Your task to perform on an android device: toggle improve location accuracy Image 0: 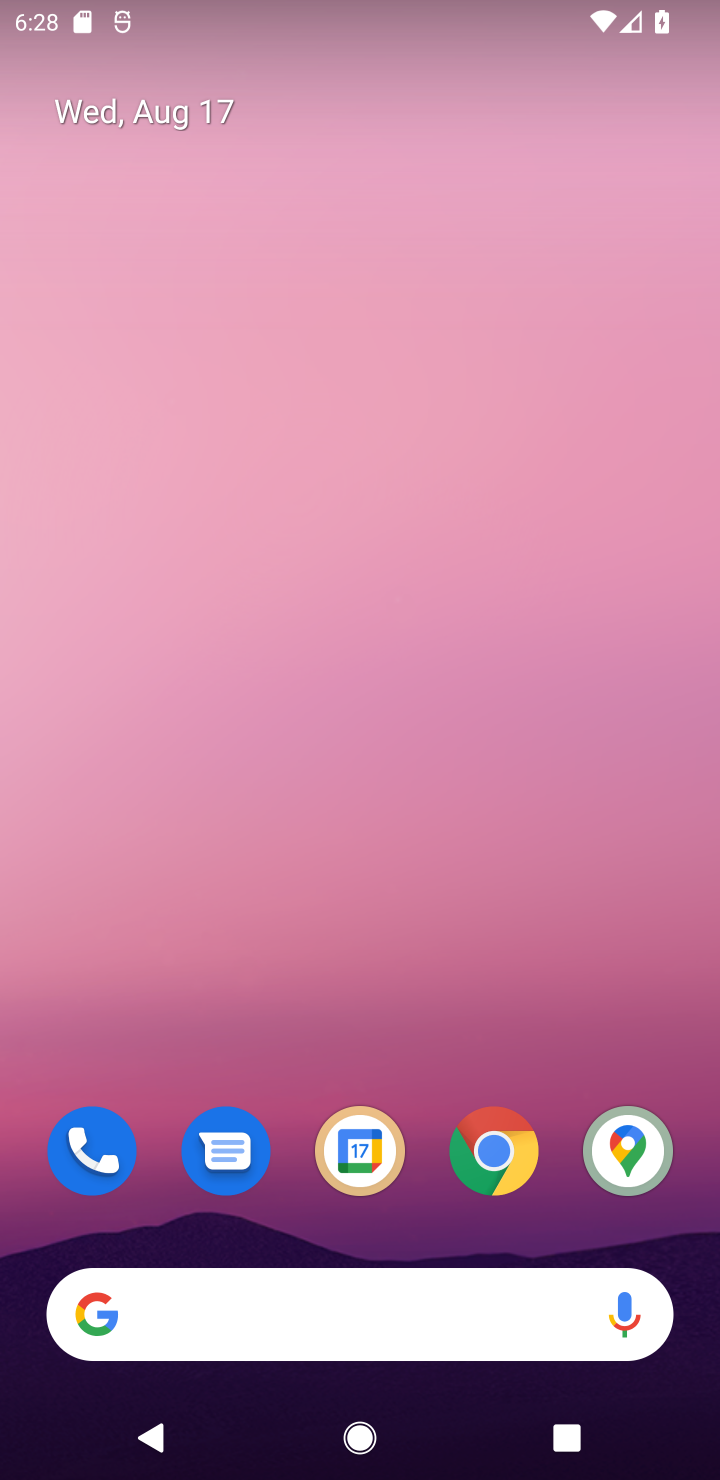
Step 0: task complete